Your task to perform on an android device: stop showing notifications on the lock screen Image 0: 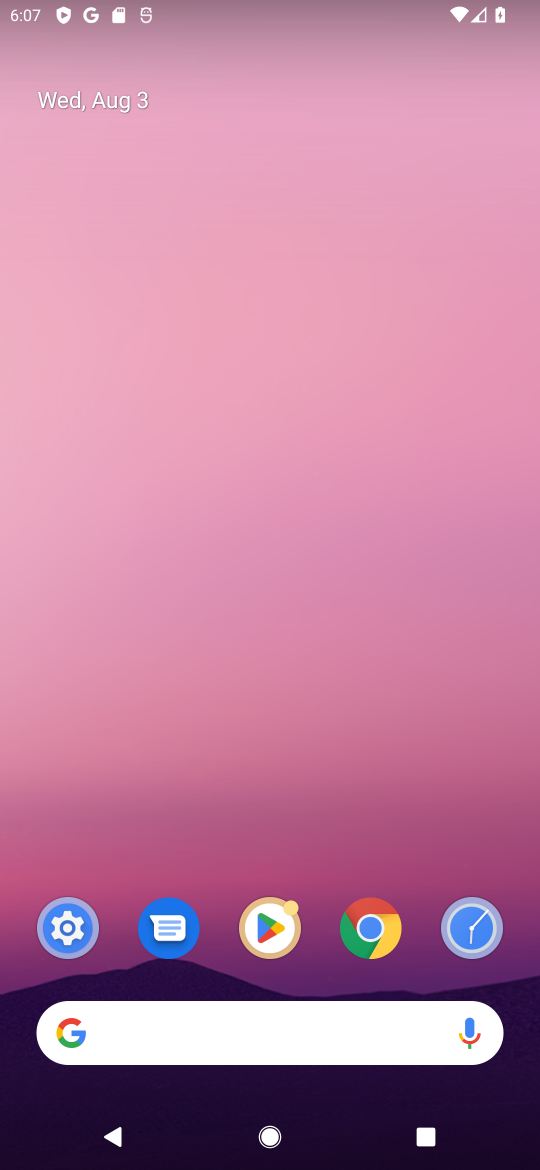
Step 0: press home button
Your task to perform on an android device: stop showing notifications on the lock screen Image 1: 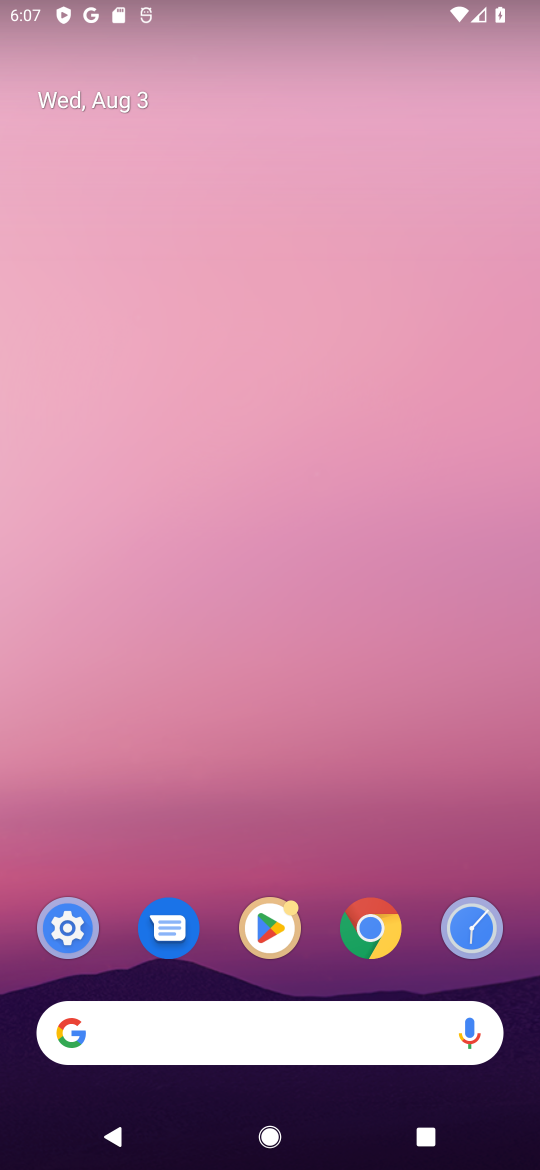
Step 1: drag from (326, 840) to (328, 168)
Your task to perform on an android device: stop showing notifications on the lock screen Image 2: 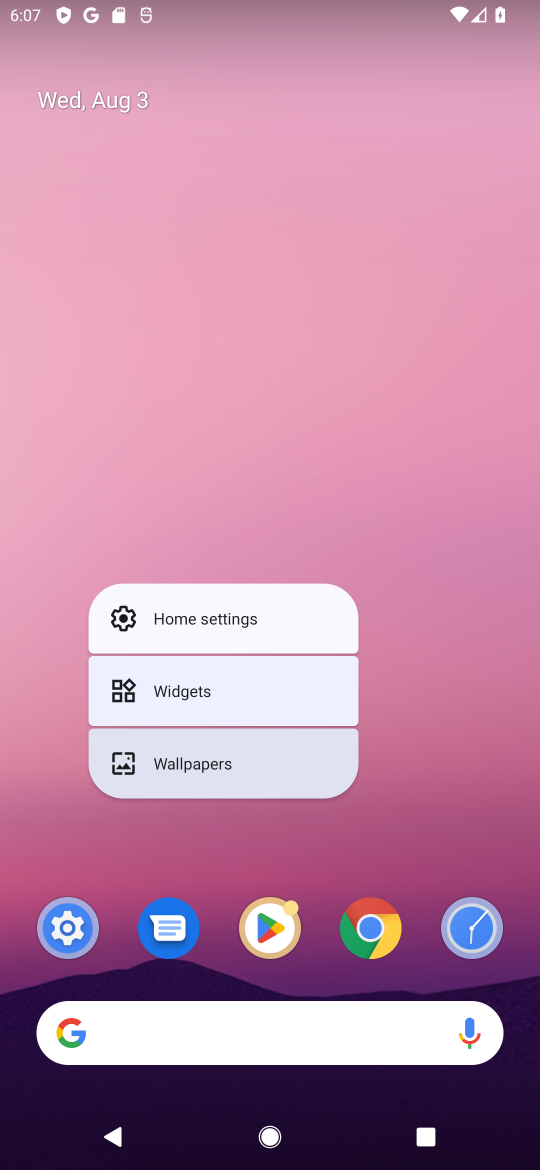
Step 2: drag from (427, 772) to (440, 186)
Your task to perform on an android device: stop showing notifications on the lock screen Image 3: 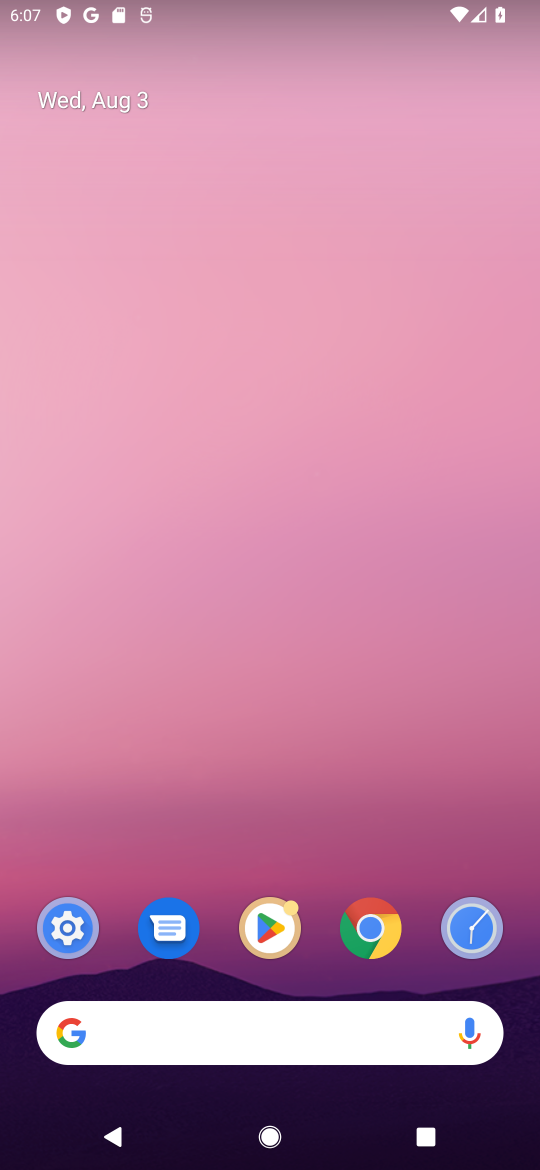
Step 3: drag from (403, 758) to (416, 415)
Your task to perform on an android device: stop showing notifications on the lock screen Image 4: 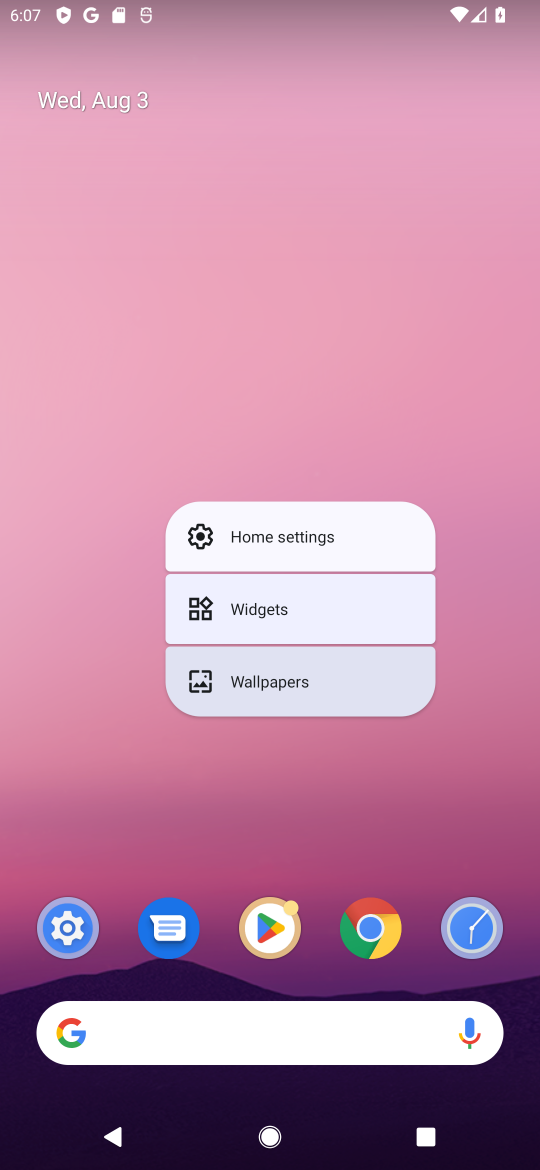
Step 4: drag from (487, 783) to (481, 154)
Your task to perform on an android device: stop showing notifications on the lock screen Image 5: 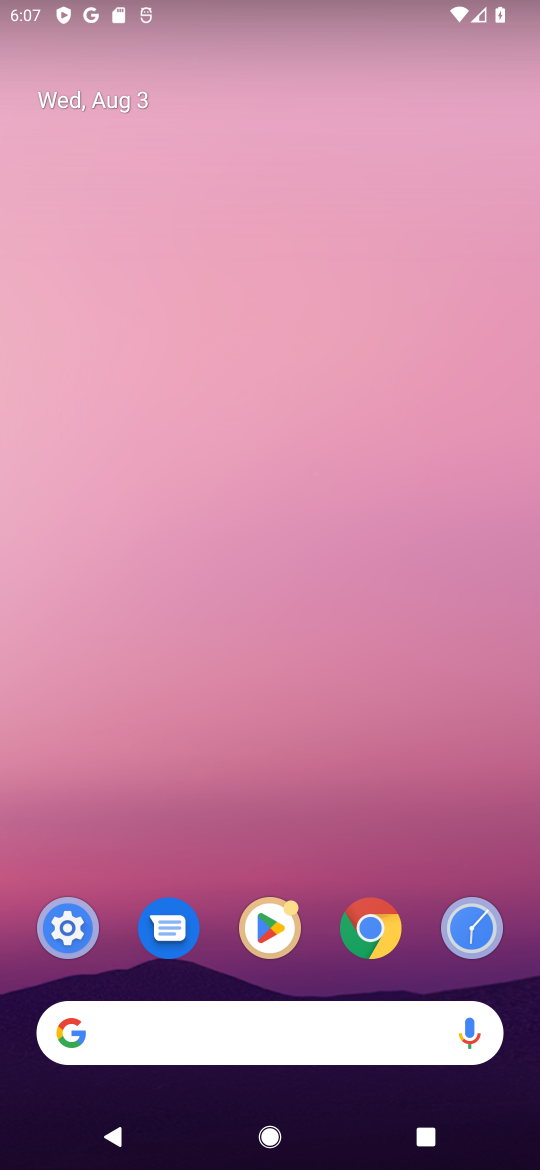
Step 5: drag from (313, 808) to (313, 80)
Your task to perform on an android device: stop showing notifications on the lock screen Image 6: 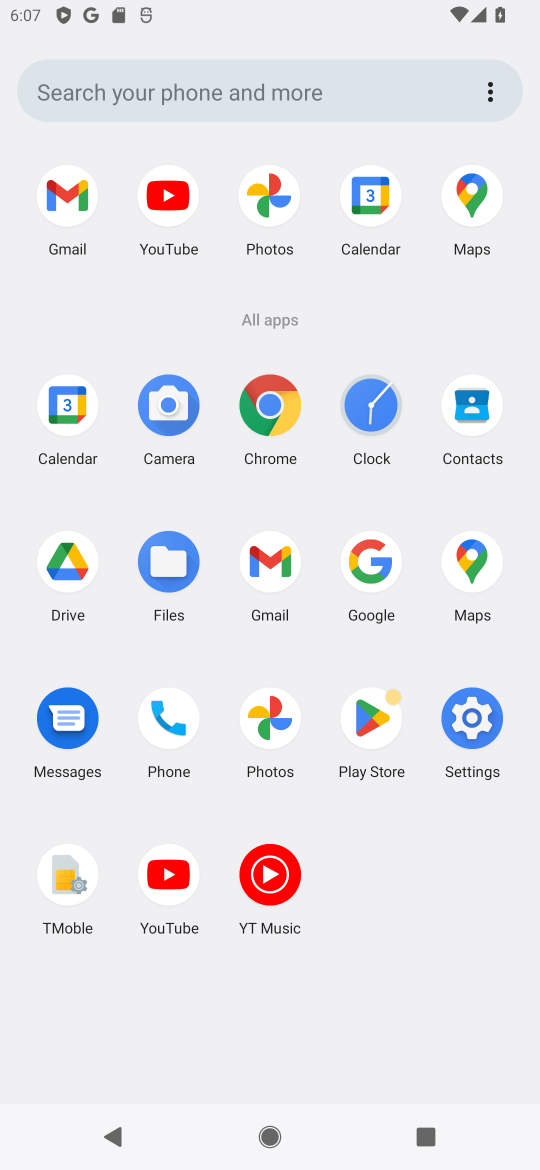
Step 6: click (489, 723)
Your task to perform on an android device: stop showing notifications on the lock screen Image 7: 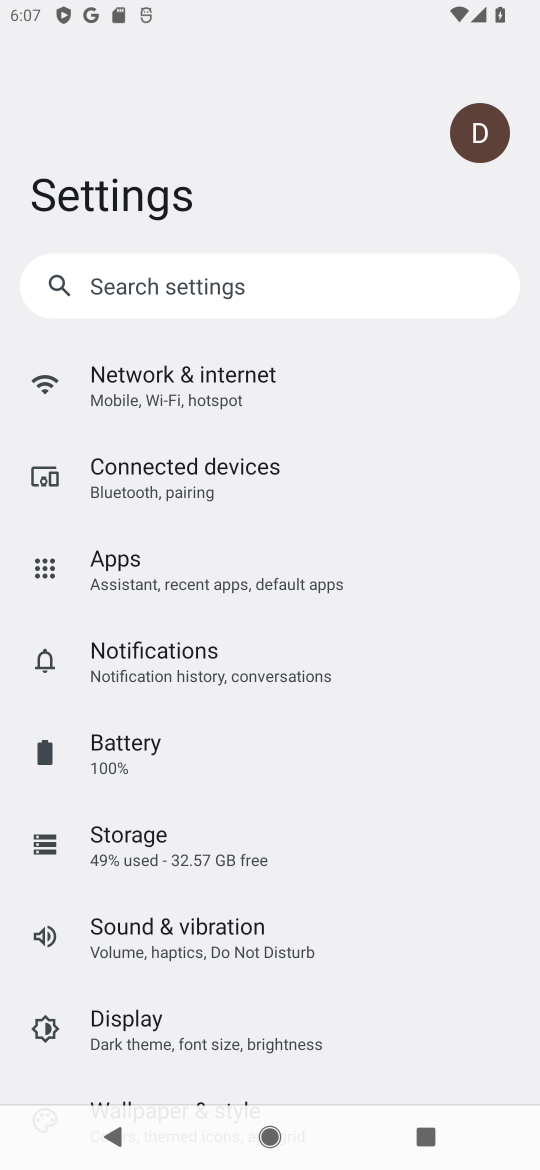
Step 7: drag from (434, 873) to (433, 754)
Your task to perform on an android device: stop showing notifications on the lock screen Image 8: 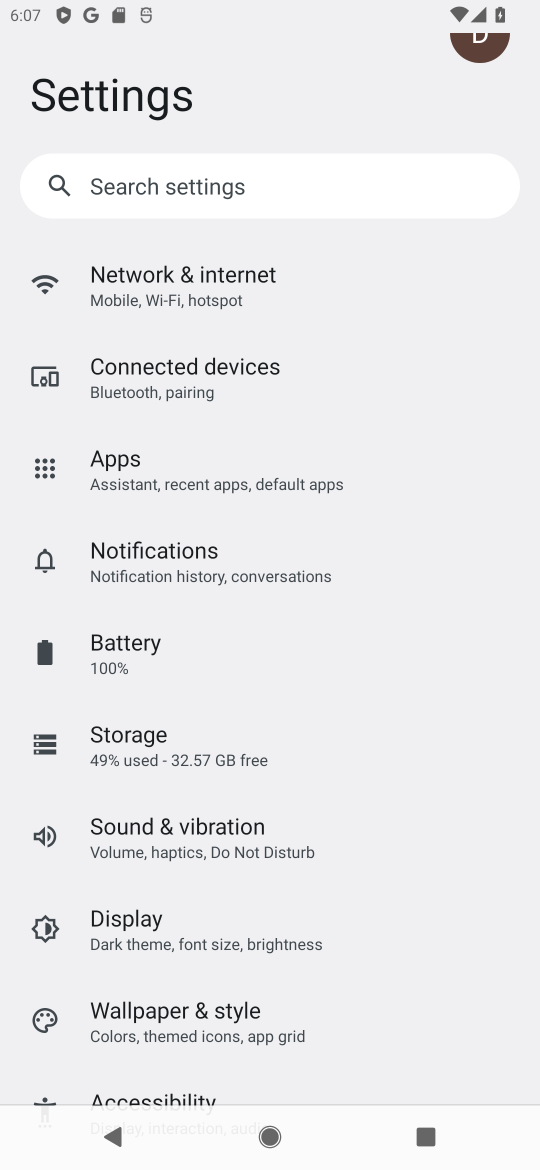
Step 8: drag from (444, 795) to (444, 714)
Your task to perform on an android device: stop showing notifications on the lock screen Image 9: 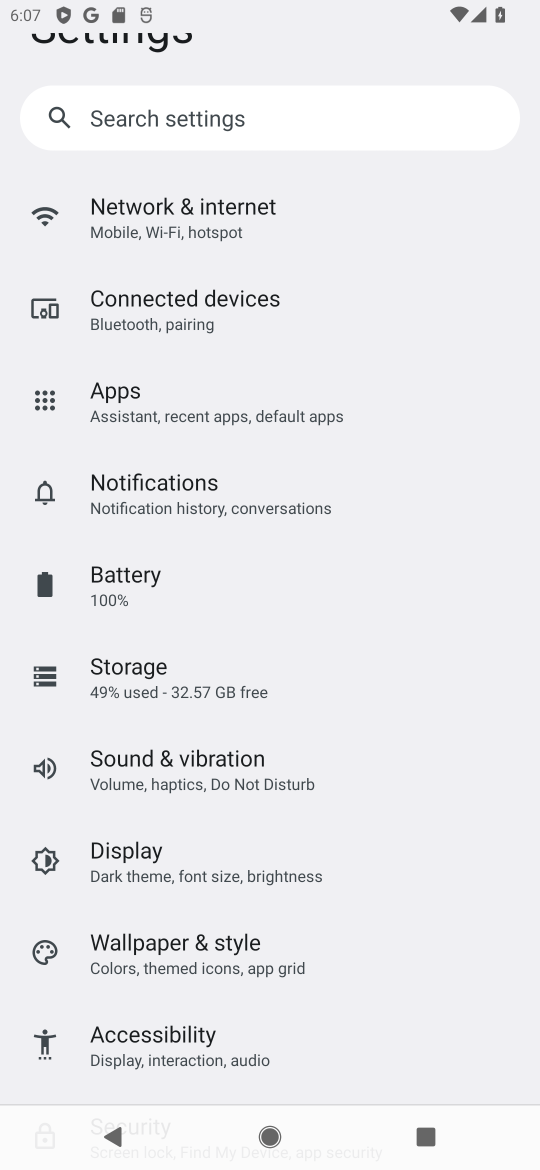
Step 9: drag from (434, 886) to (440, 731)
Your task to perform on an android device: stop showing notifications on the lock screen Image 10: 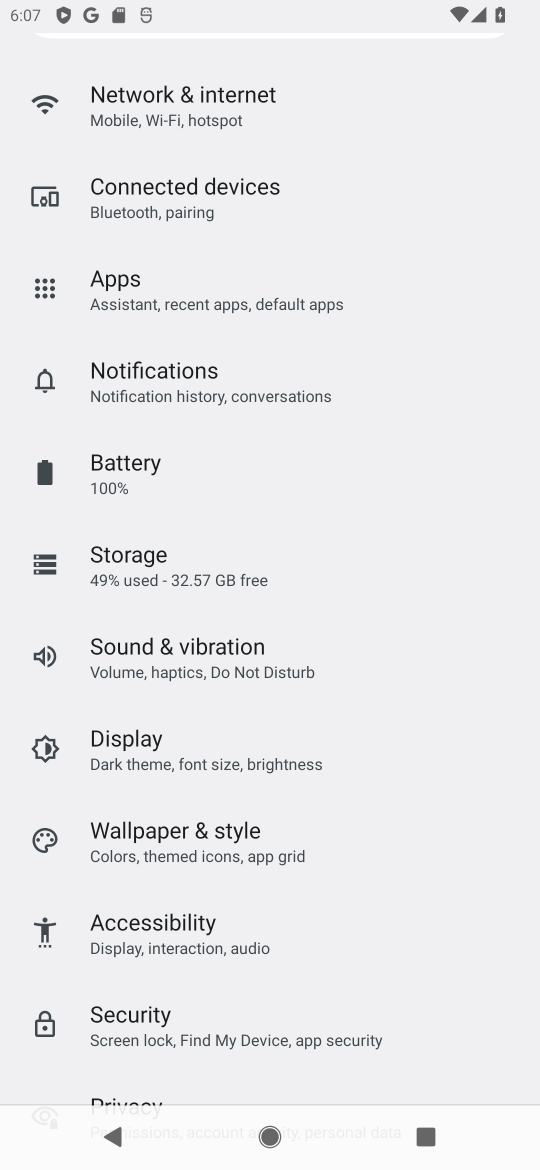
Step 10: drag from (473, 882) to (478, 722)
Your task to perform on an android device: stop showing notifications on the lock screen Image 11: 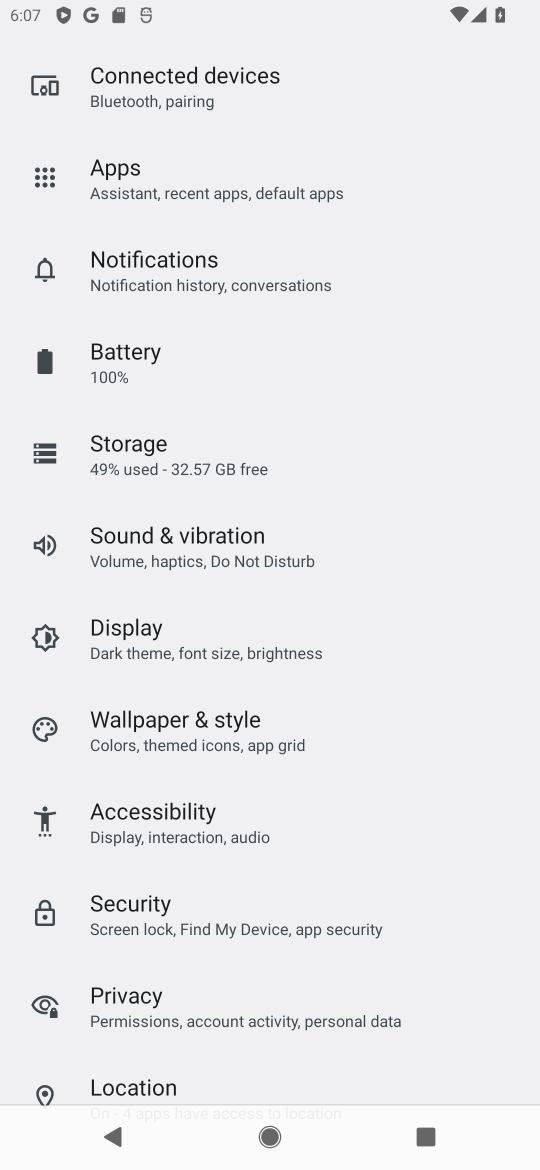
Step 11: drag from (515, 857) to (518, 696)
Your task to perform on an android device: stop showing notifications on the lock screen Image 12: 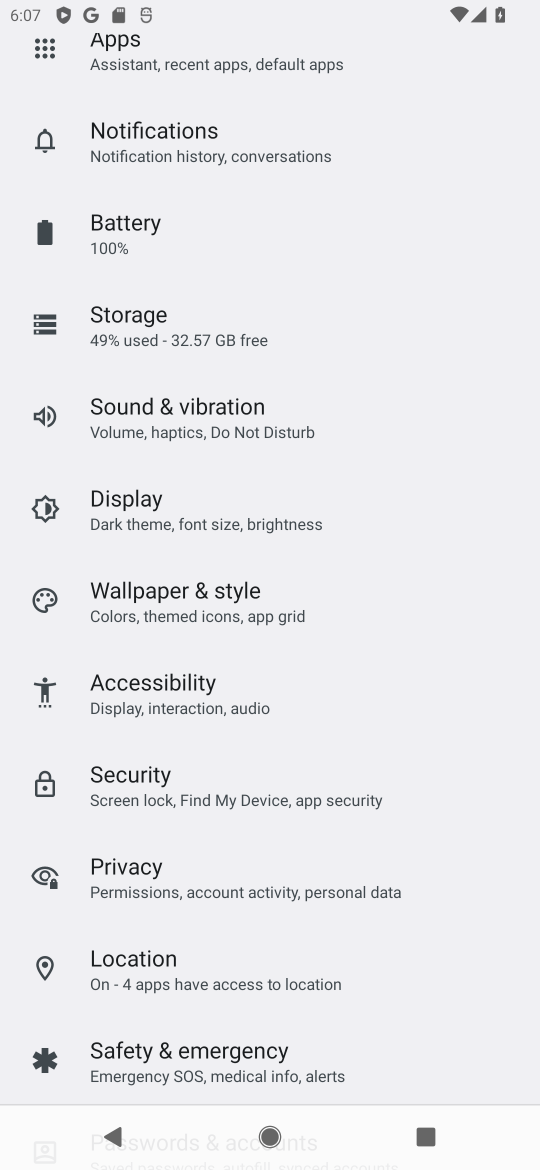
Step 12: drag from (438, 455) to (433, 614)
Your task to perform on an android device: stop showing notifications on the lock screen Image 13: 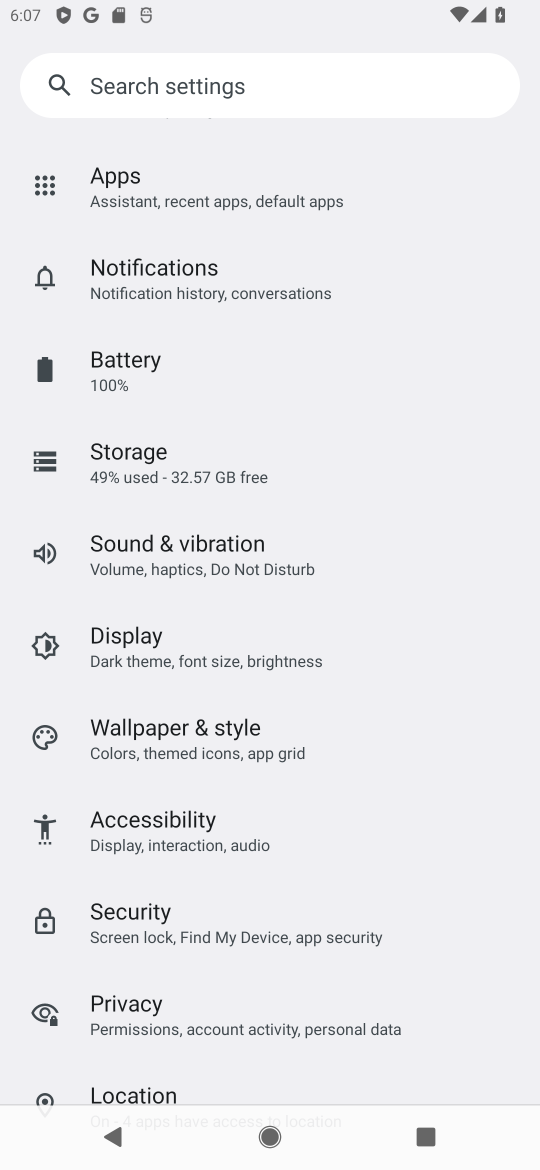
Step 13: drag from (430, 378) to (428, 674)
Your task to perform on an android device: stop showing notifications on the lock screen Image 14: 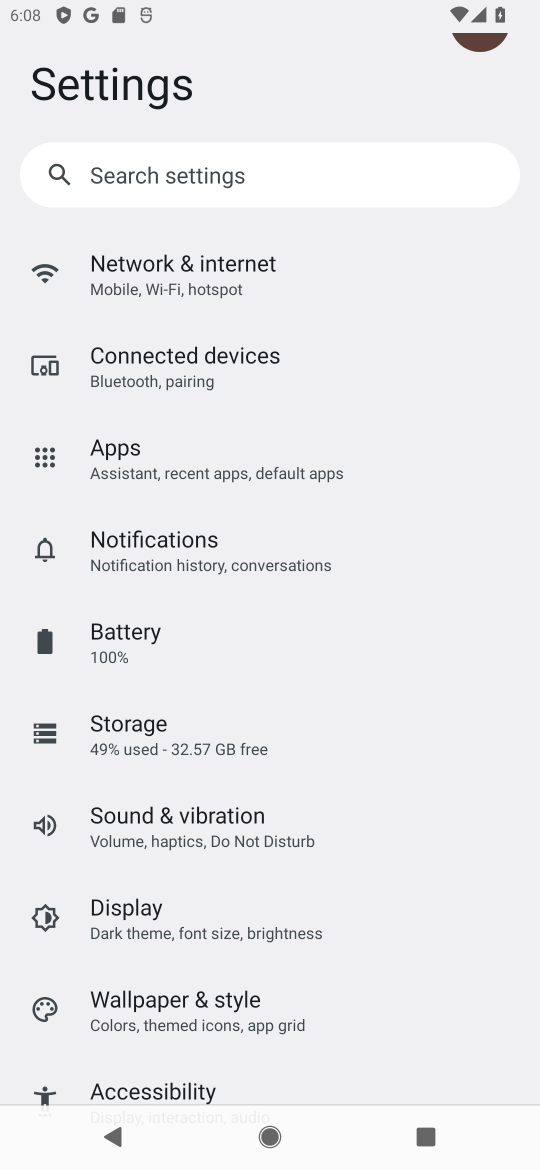
Step 14: click (269, 534)
Your task to perform on an android device: stop showing notifications on the lock screen Image 15: 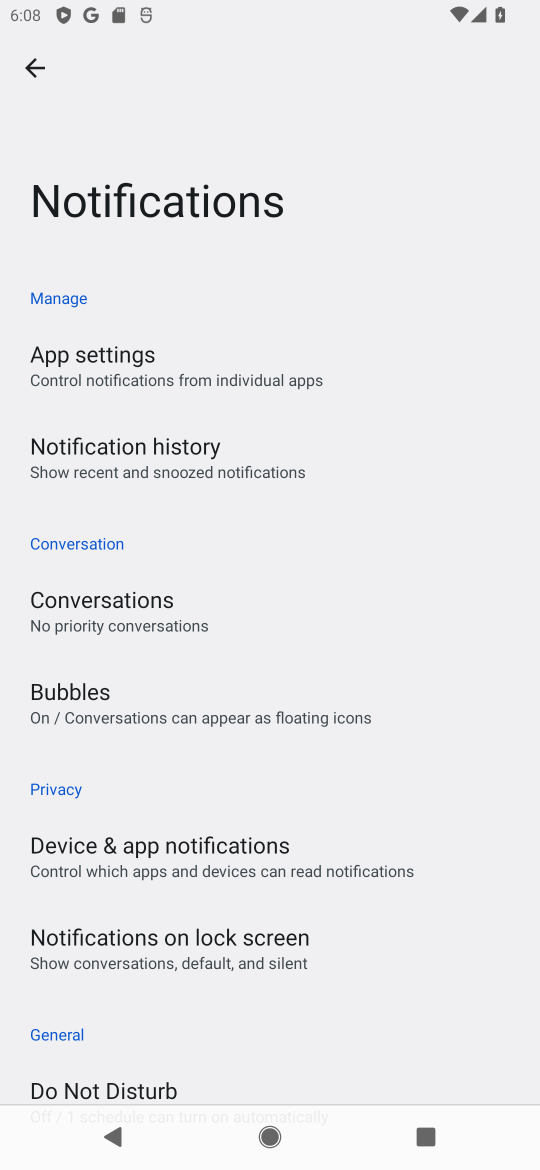
Step 15: drag from (442, 858) to (449, 694)
Your task to perform on an android device: stop showing notifications on the lock screen Image 16: 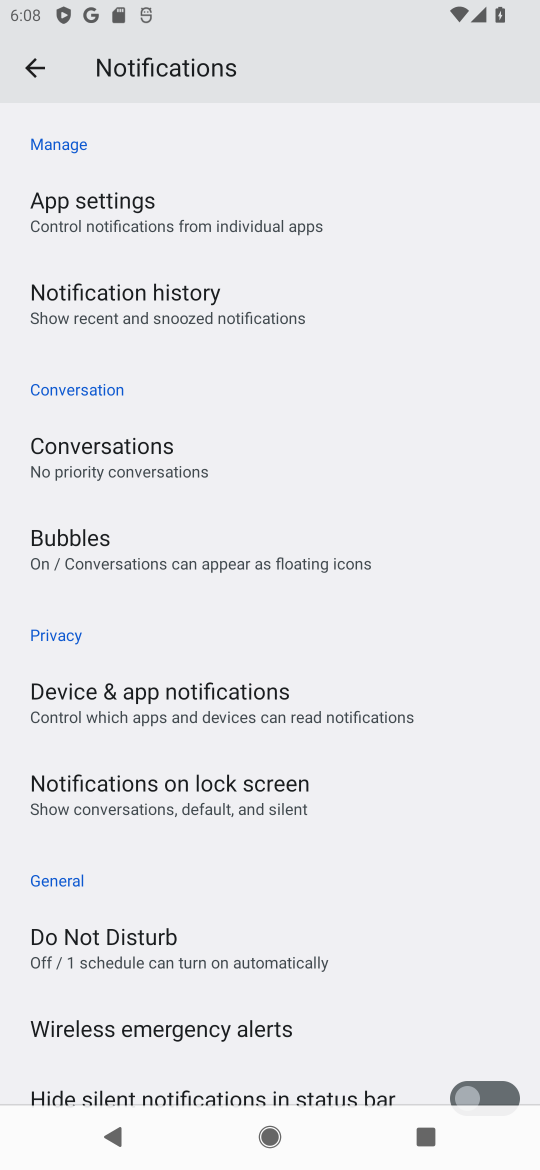
Step 16: drag from (450, 836) to (449, 691)
Your task to perform on an android device: stop showing notifications on the lock screen Image 17: 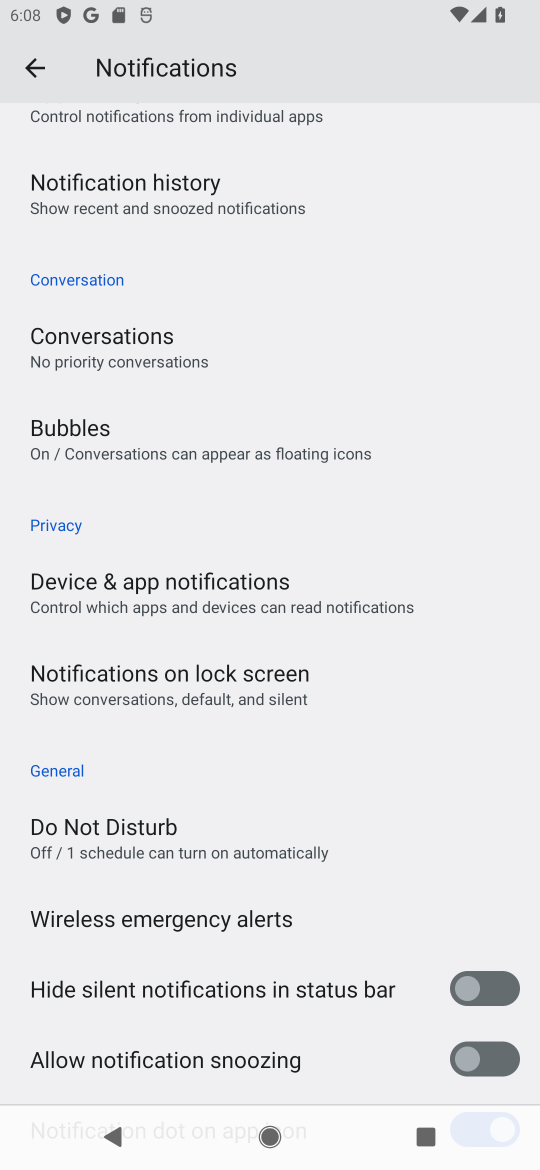
Step 17: click (396, 704)
Your task to perform on an android device: stop showing notifications on the lock screen Image 18: 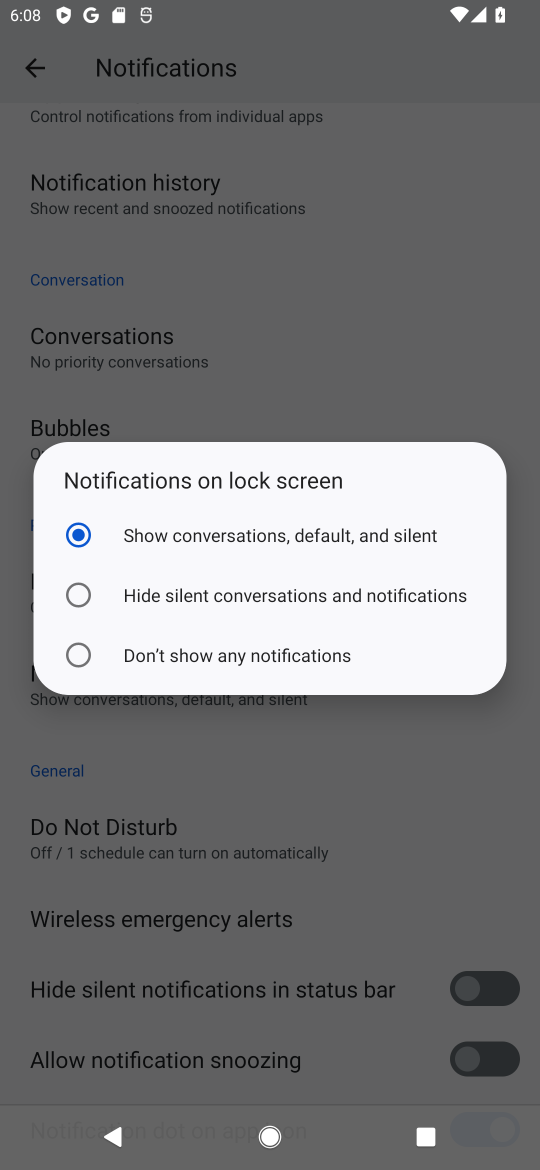
Step 18: click (240, 655)
Your task to perform on an android device: stop showing notifications on the lock screen Image 19: 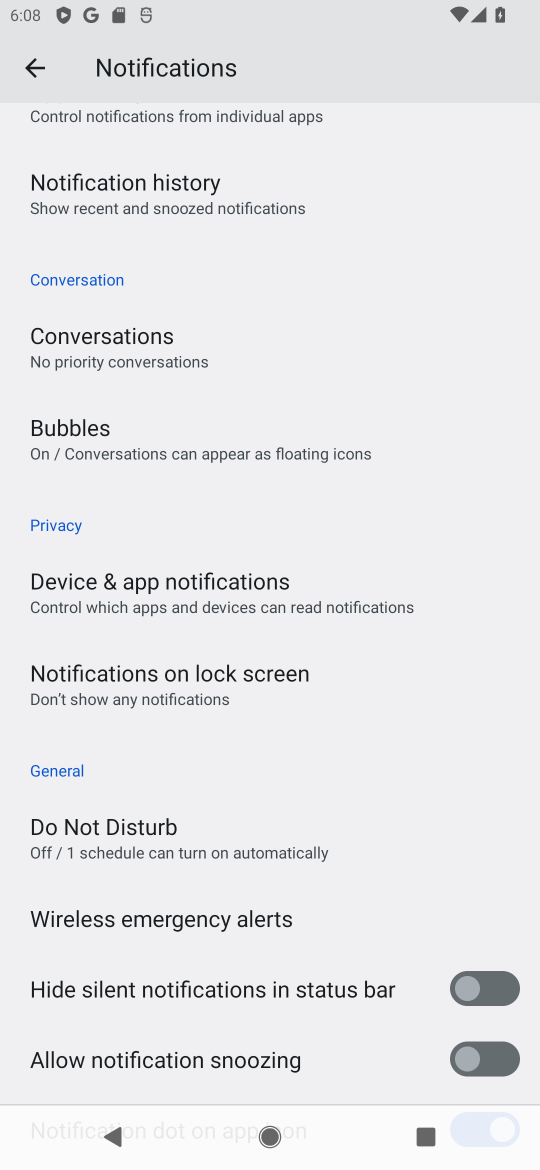
Step 19: task complete